Your task to perform on an android device: Go to settings Image 0: 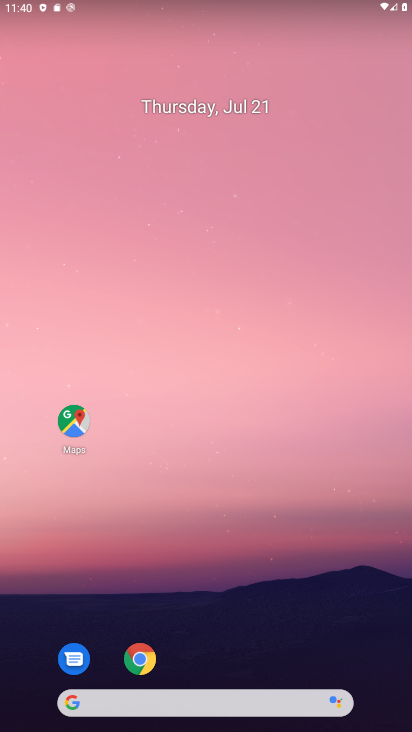
Step 0: task complete